Your task to perform on an android device: Go to Wikipedia Image 0: 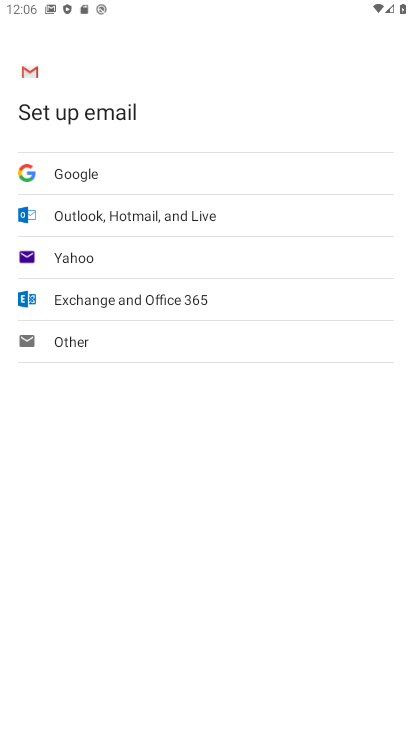
Step 0: press home button
Your task to perform on an android device: Go to Wikipedia Image 1: 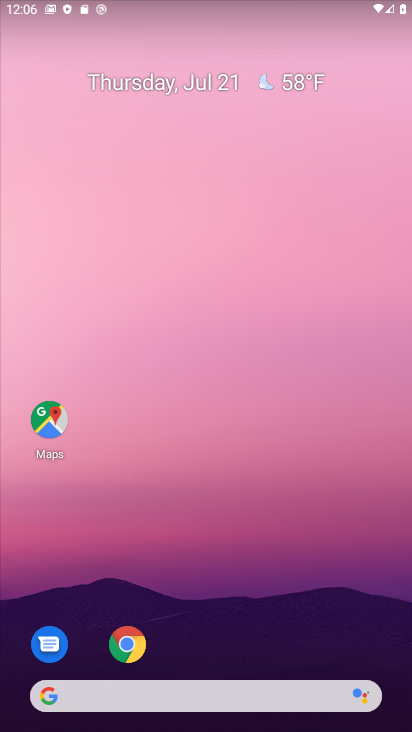
Step 1: drag from (217, 661) to (186, 137)
Your task to perform on an android device: Go to Wikipedia Image 2: 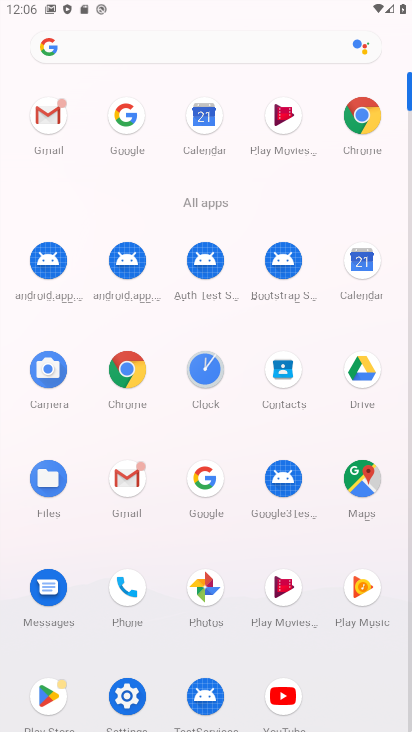
Step 2: click (361, 107)
Your task to perform on an android device: Go to Wikipedia Image 3: 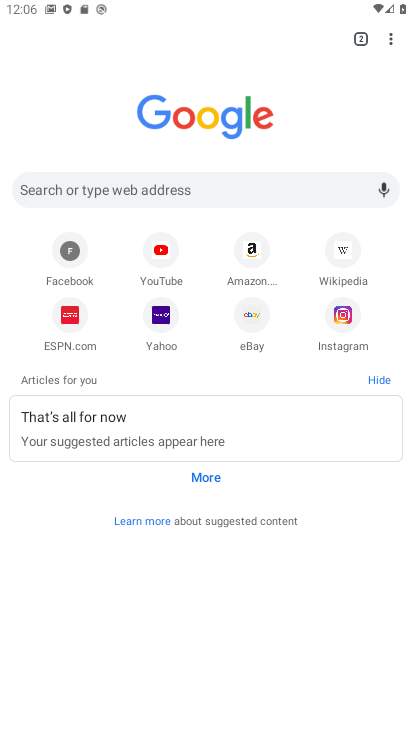
Step 3: click (337, 246)
Your task to perform on an android device: Go to Wikipedia Image 4: 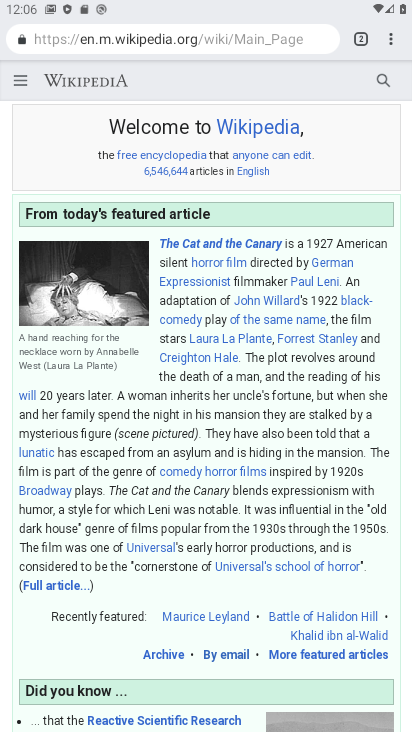
Step 4: task complete